Your task to perform on an android device: move a message to another label in the gmail app Image 0: 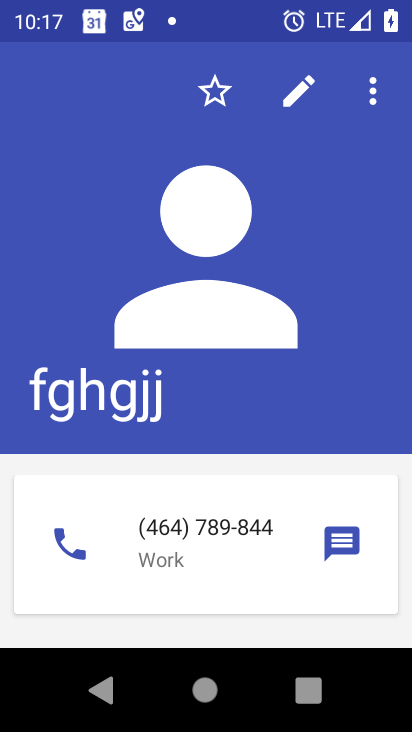
Step 0: press home button
Your task to perform on an android device: move a message to another label in the gmail app Image 1: 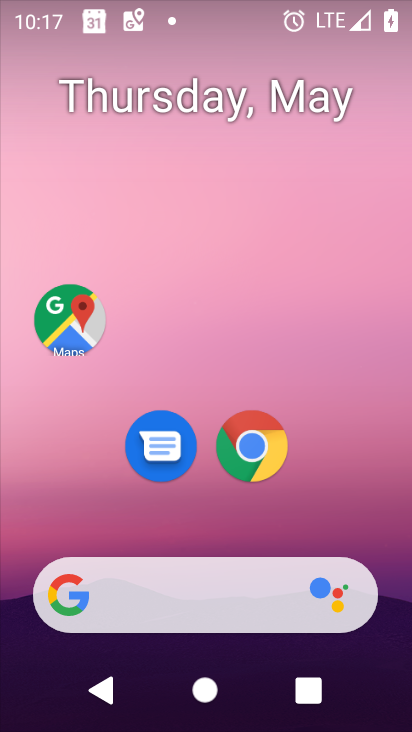
Step 1: click (308, 93)
Your task to perform on an android device: move a message to another label in the gmail app Image 2: 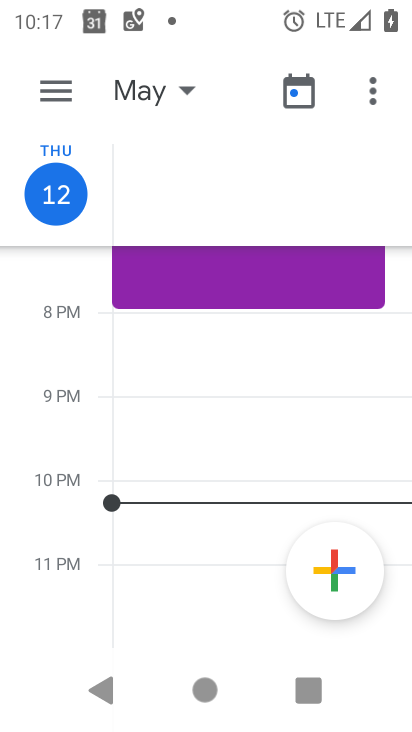
Step 2: press home button
Your task to perform on an android device: move a message to another label in the gmail app Image 3: 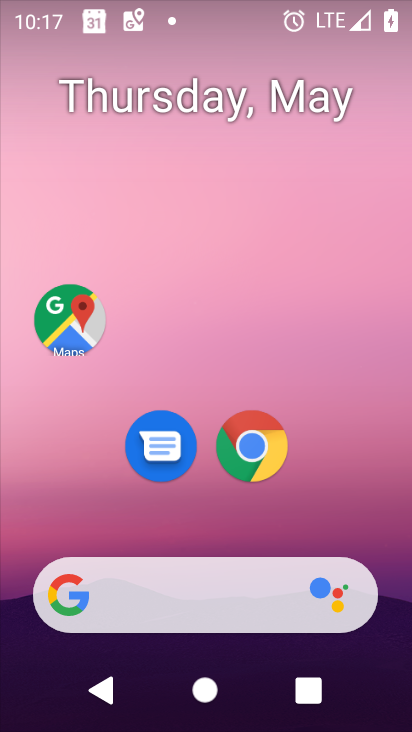
Step 3: drag from (394, 596) to (315, 189)
Your task to perform on an android device: move a message to another label in the gmail app Image 4: 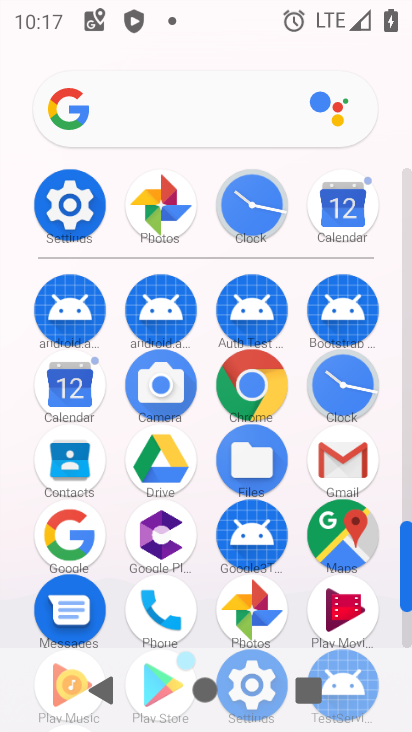
Step 4: click (408, 636)
Your task to perform on an android device: move a message to another label in the gmail app Image 5: 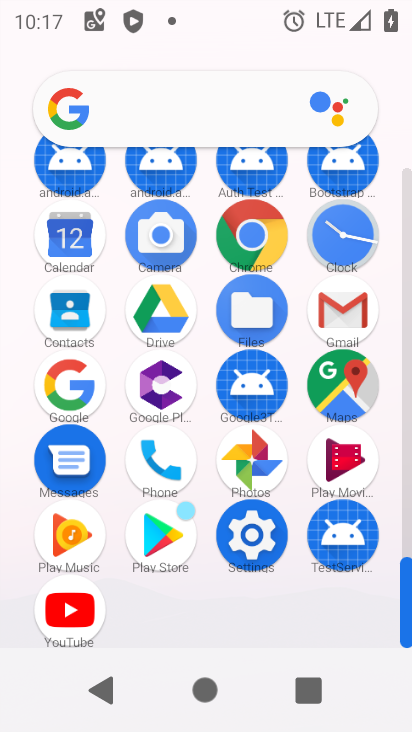
Step 5: click (342, 307)
Your task to perform on an android device: move a message to another label in the gmail app Image 6: 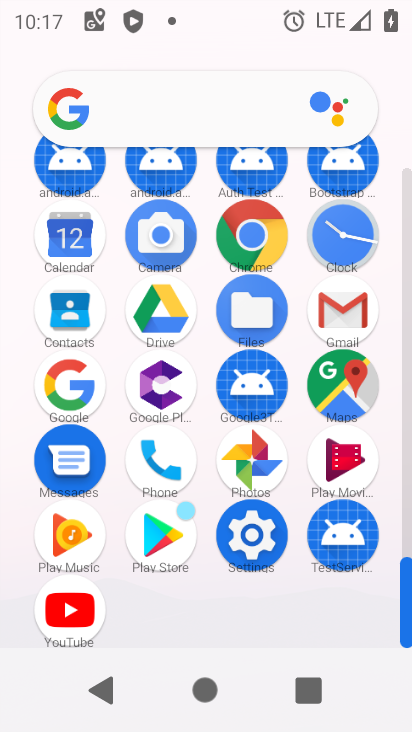
Step 6: click (342, 307)
Your task to perform on an android device: move a message to another label in the gmail app Image 7: 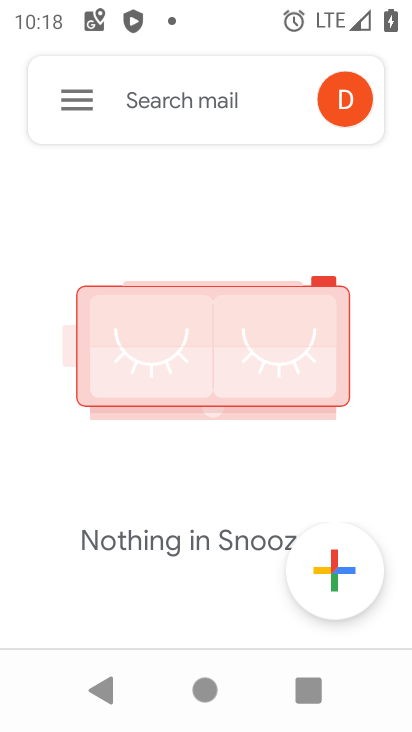
Step 7: click (76, 95)
Your task to perform on an android device: move a message to another label in the gmail app Image 8: 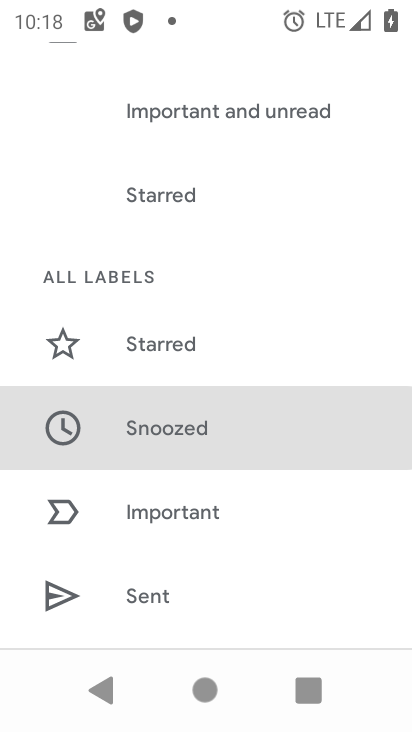
Step 8: drag from (269, 594) to (279, 202)
Your task to perform on an android device: move a message to another label in the gmail app Image 9: 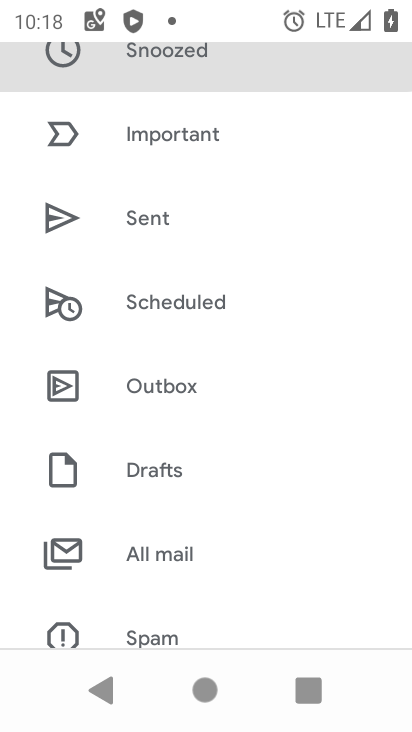
Step 9: click (169, 556)
Your task to perform on an android device: move a message to another label in the gmail app Image 10: 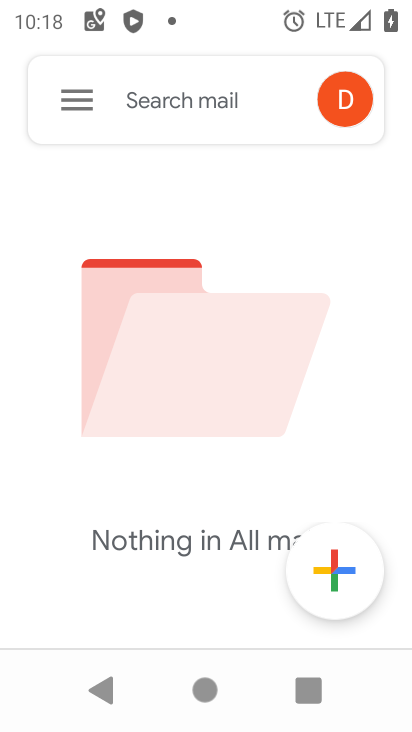
Step 10: task complete